Your task to perform on an android device: What is the news today? Image 0: 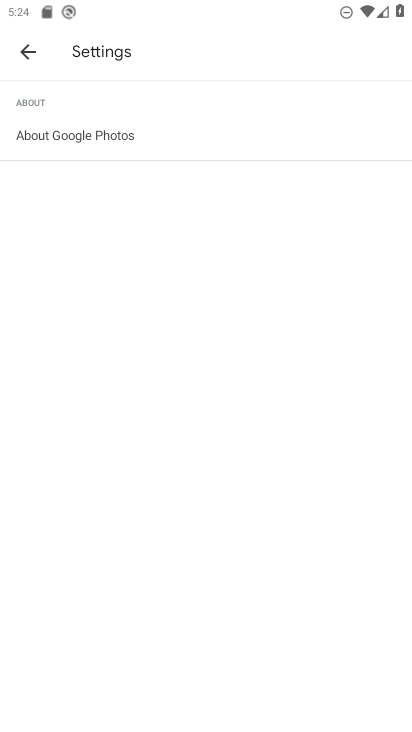
Step 0: press home button
Your task to perform on an android device: What is the news today? Image 1: 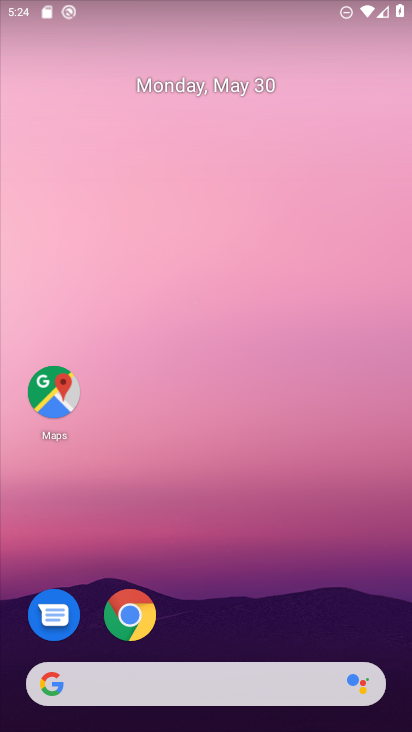
Step 1: press home button
Your task to perform on an android device: What is the news today? Image 2: 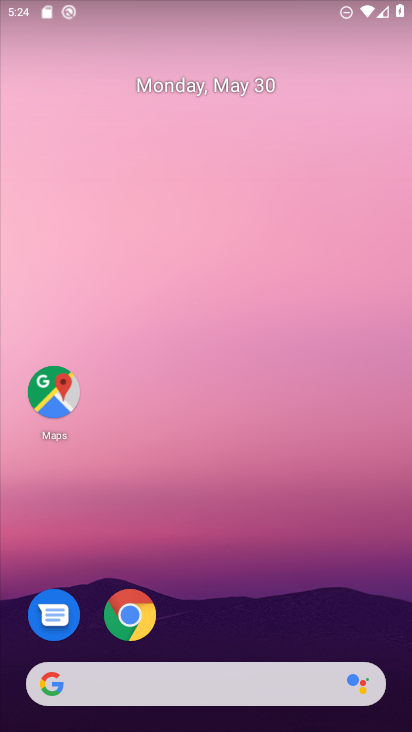
Step 2: click (128, 672)
Your task to perform on an android device: What is the news today? Image 3: 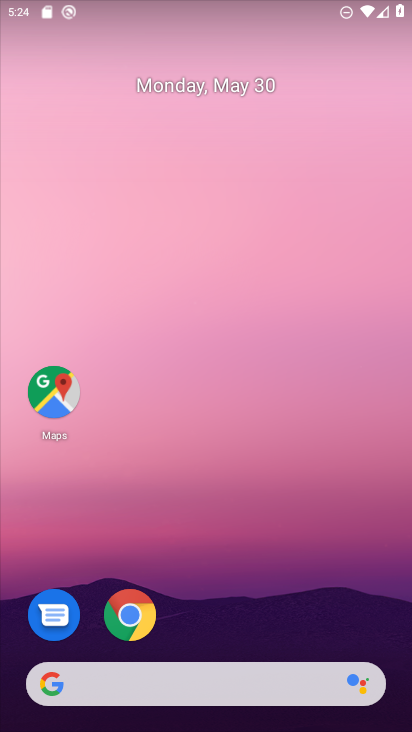
Step 3: click (159, 674)
Your task to perform on an android device: What is the news today? Image 4: 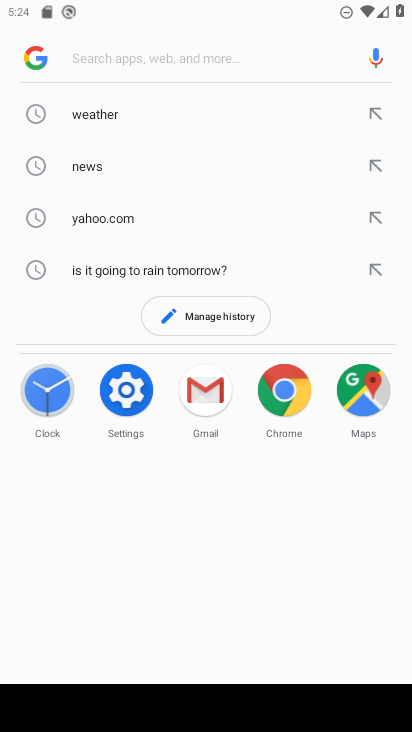
Step 4: click (115, 158)
Your task to perform on an android device: What is the news today? Image 5: 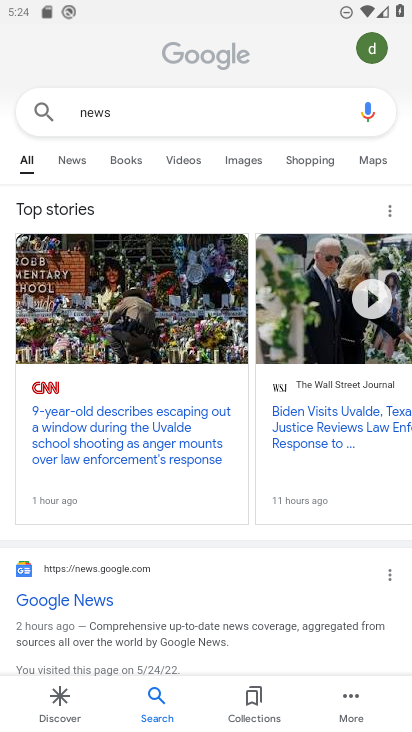
Step 5: task complete